Your task to perform on an android device: Show me popular videos on Youtube Image 0: 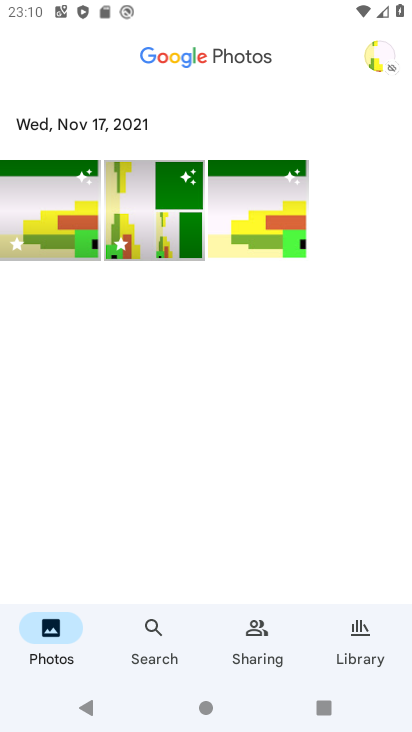
Step 0: press home button
Your task to perform on an android device: Show me popular videos on Youtube Image 1: 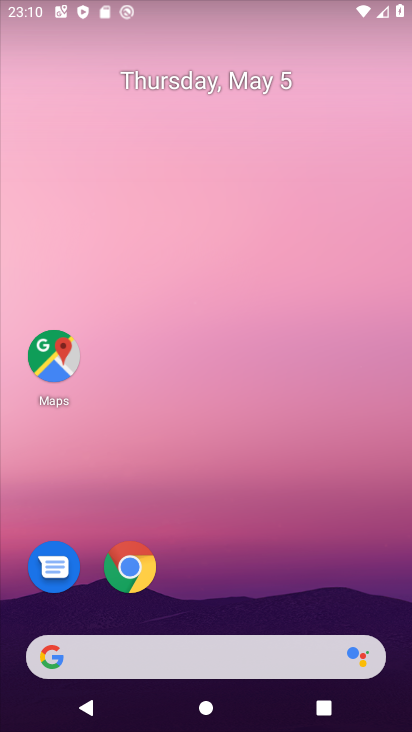
Step 1: drag from (223, 583) to (205, 208)
Your task to perform on an android device: Show me popular videos on Youtube Image 2: 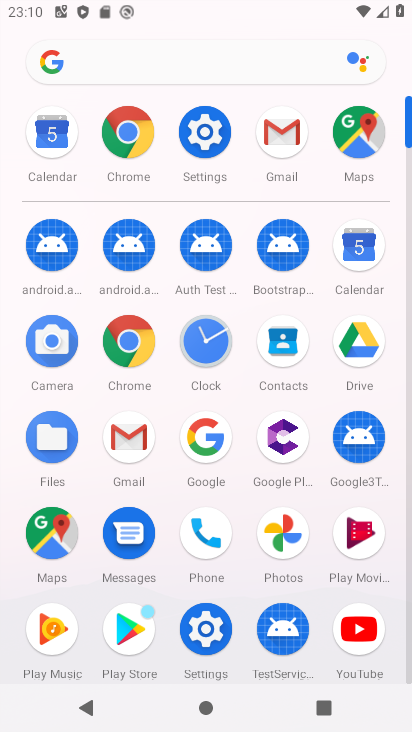
Step 2: click (341, 628)
Your task to perform on an android device: Show me popular videos on Youtube Image 3: 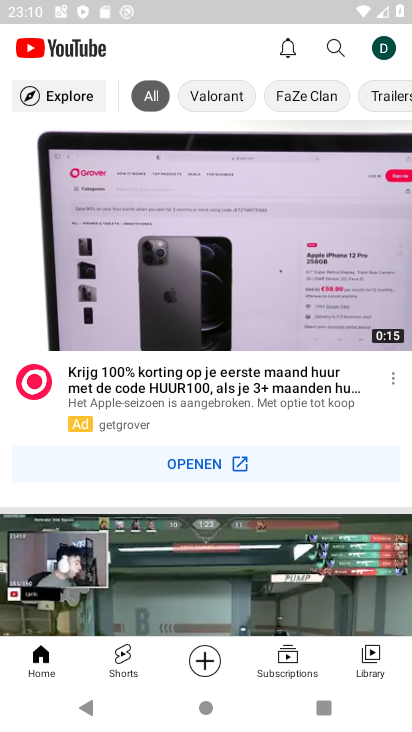
Step 3: click (327, 53)
Your task to perform on an android device: Show me popular videos on Youtube Image 4: 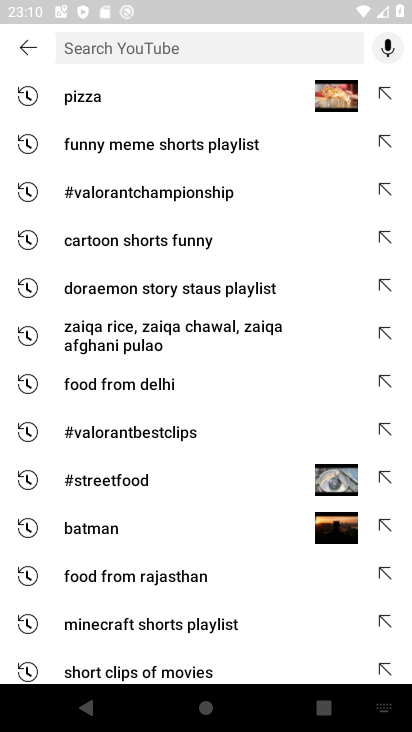
Step 4: type "popular videos"
Your task to perform on an android device: Show me popular videos on Youtube Image 5: 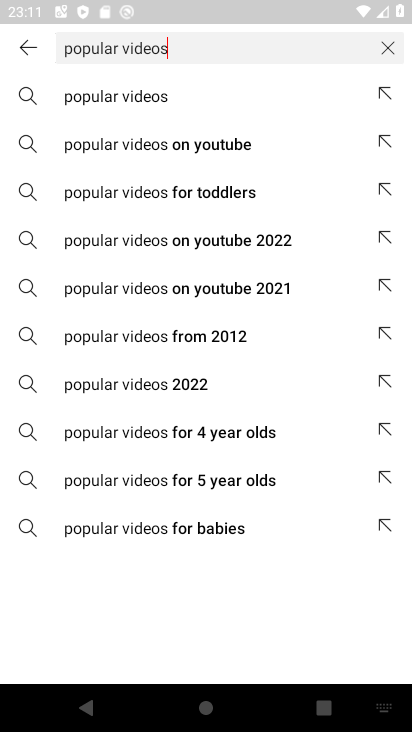
Step 5: click (159, 94)
Your task to perform on an android device: Show me popular videos on Youtube Image 6: 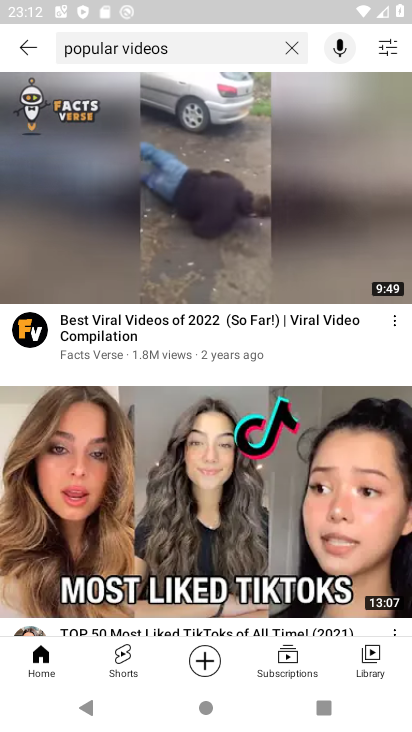
Step 6: task complete